Your task to perform on an android device: open the mobile data screen to see how much data has been used Image 0: 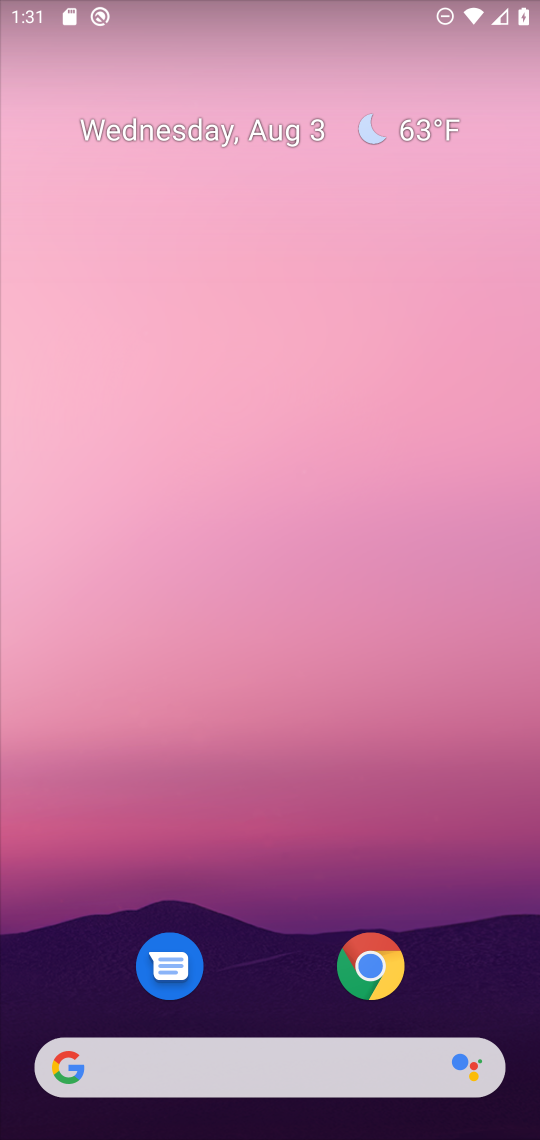
Step 0: drag from (291, 700) to (264, 275)
Your task to perform on an android device: open the mobile data screen to see how much data has been used Image 1: 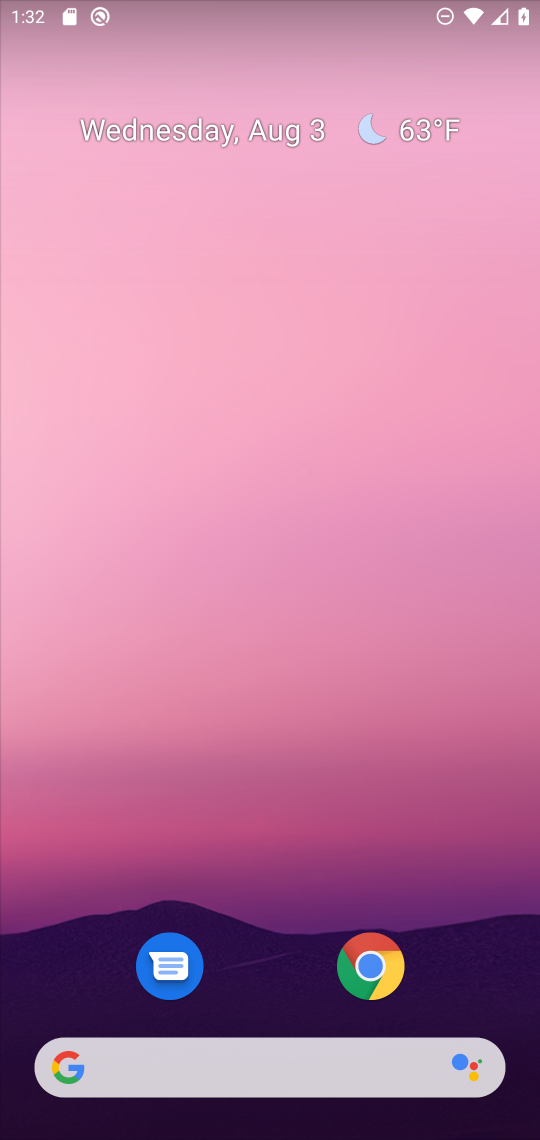
Step 1: drag from (265, 966) to (279, 265)
Your task to perform on an android device: open the mobile data screen to see how much data has been used Image 2: 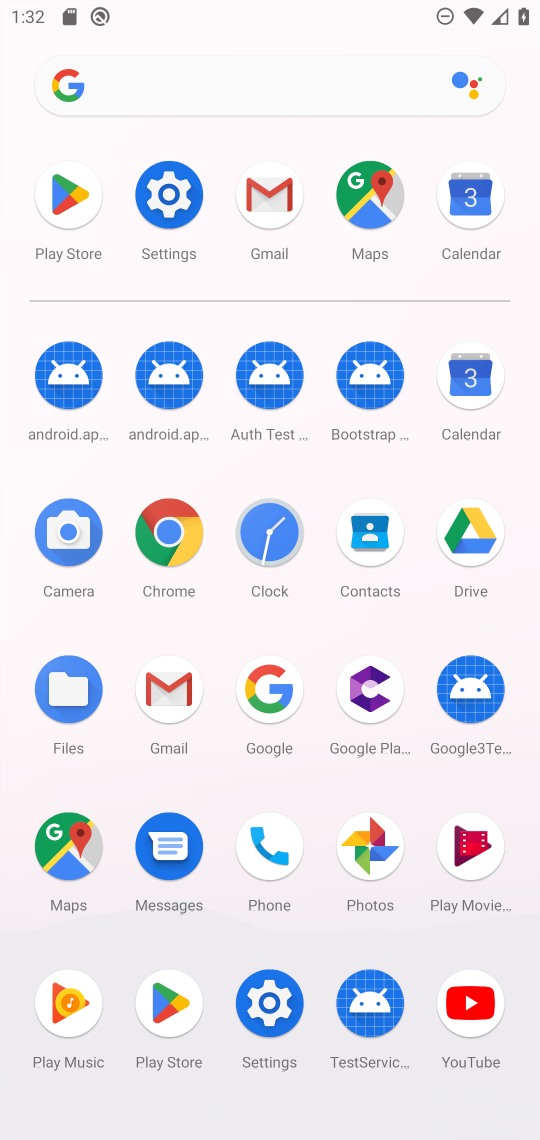
Step 2: click (174, 205)
Your task to perform on an android device: open the mobile data screen to see how much data has been used Image 3: 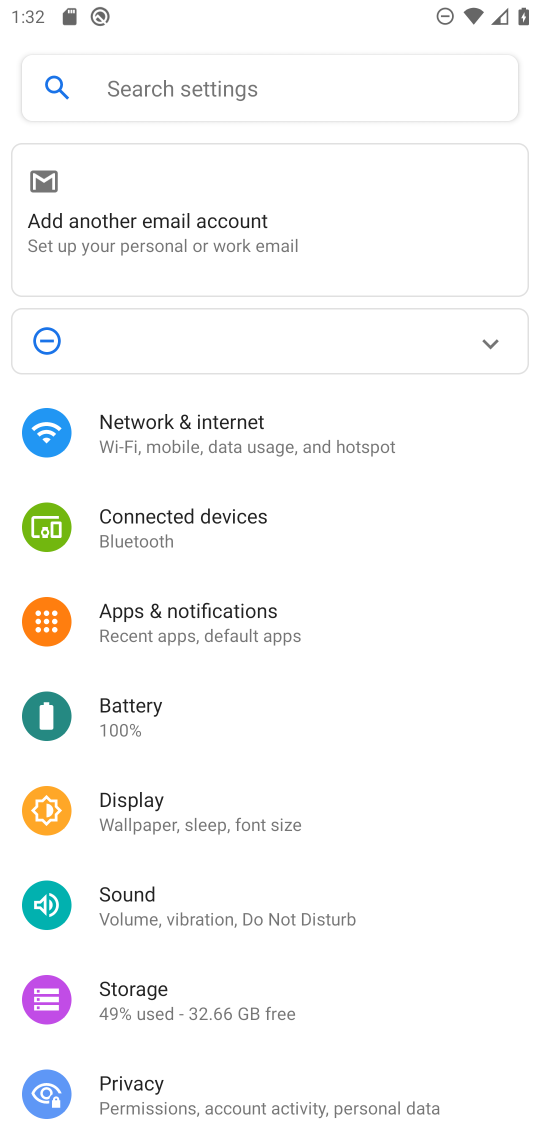
Step 3: click (206, 434)
Your task to perform on an android device: open the mobile data screen to see how much data has been used Image 4: 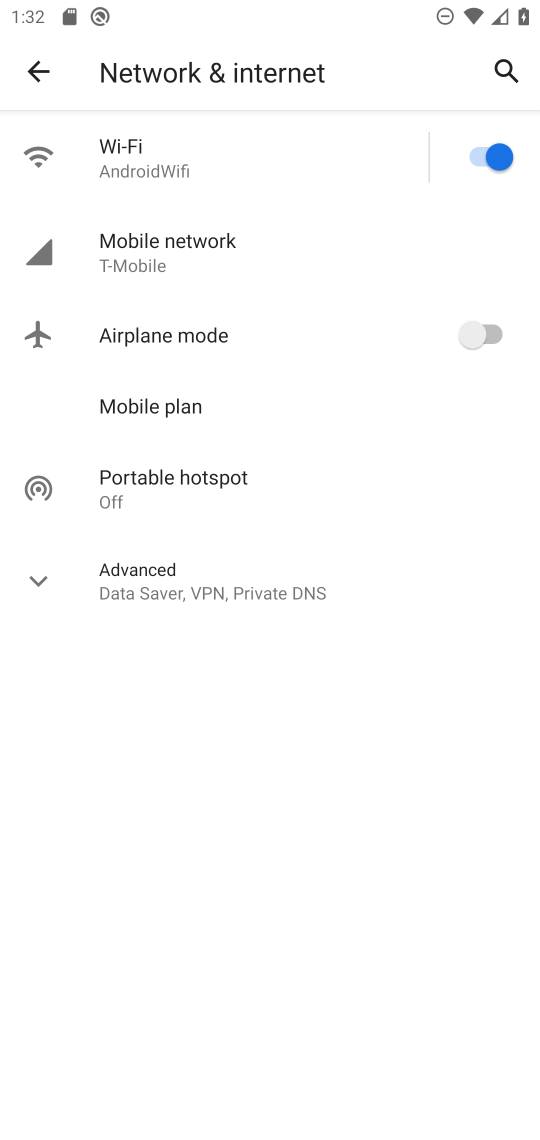
Step 4: click (173, 263)
Your task to perform on an android device: open the mobile data screen to see how much data has been used Image 5: 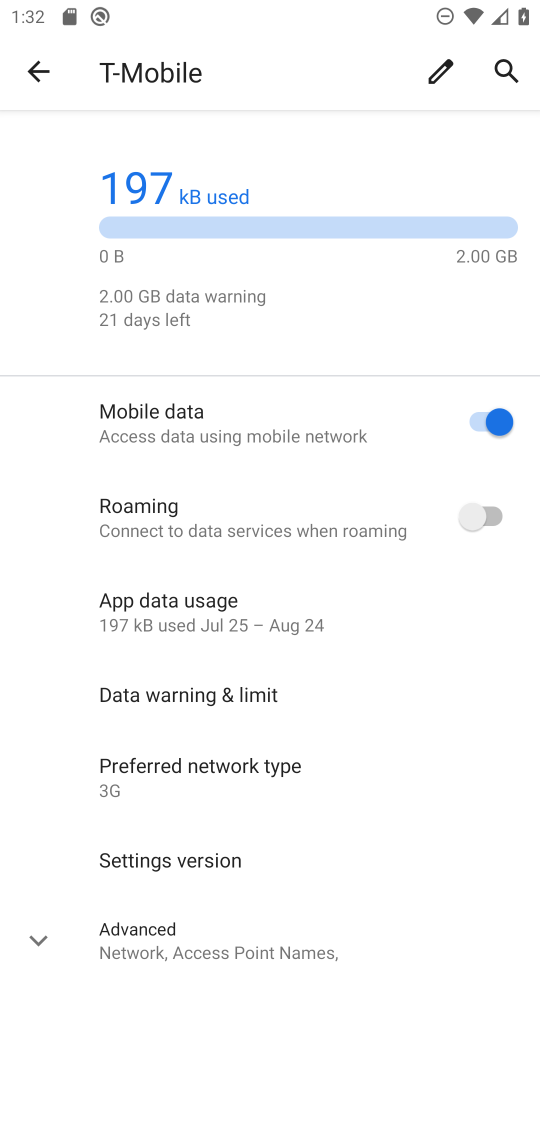
Step 5: click (193, 623)
Your task to perform on an android device: open the mobile data screen to see how much data has been used Image 6: 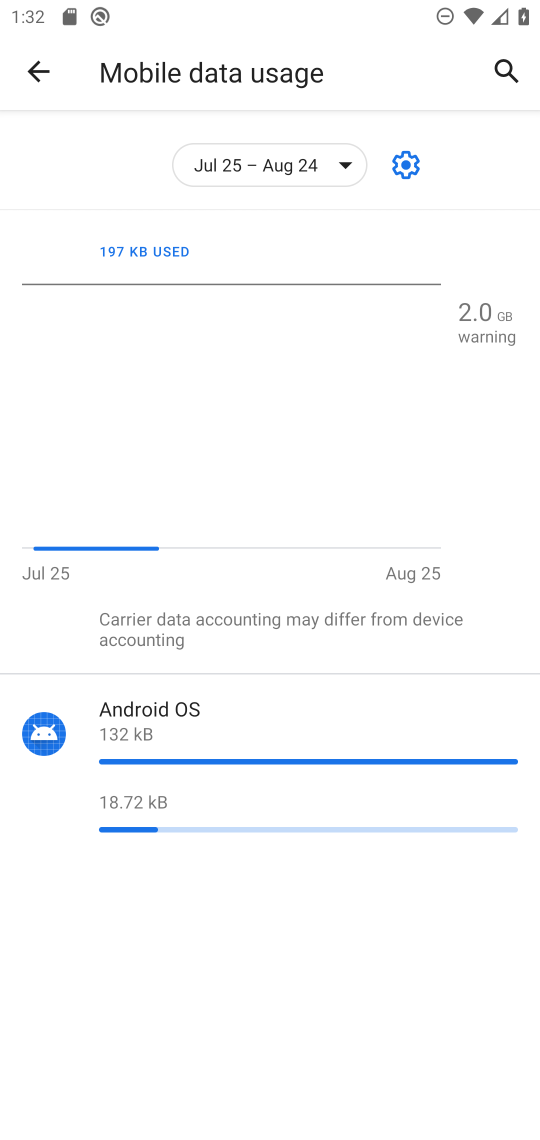
Step 6: task complete